Your task to perform on an android device: make emails show in primary in the gmail app Image 0: 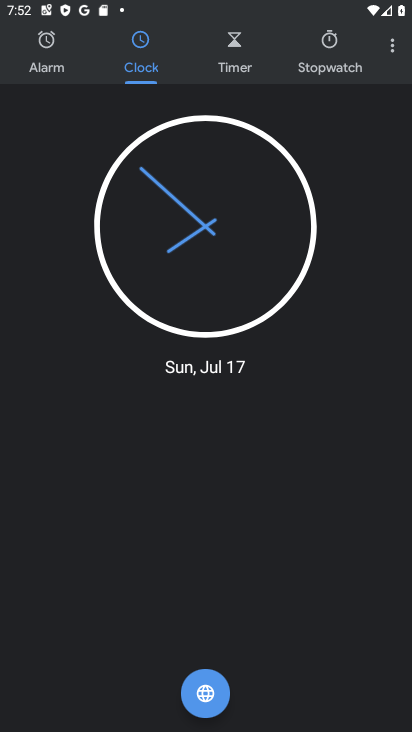
Step 0: press home button
Your task to perform on an android device: make emails show in primary in the gmail app Image 1: 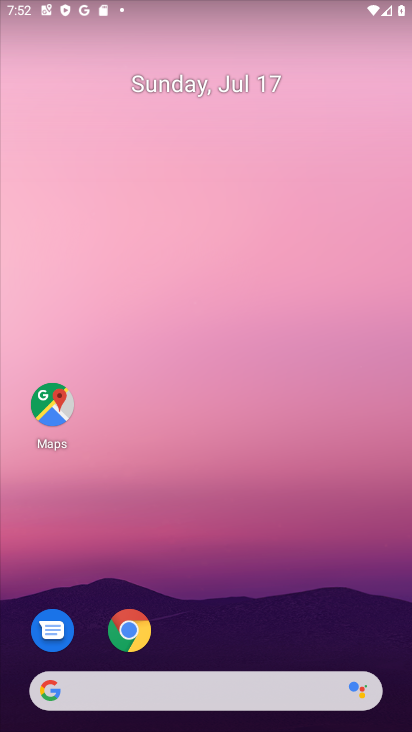
Step 1: drag from (204, 632) to (212, 11)
Your task to perform on an android device: make emails show in primary in the gmail app Image 2: 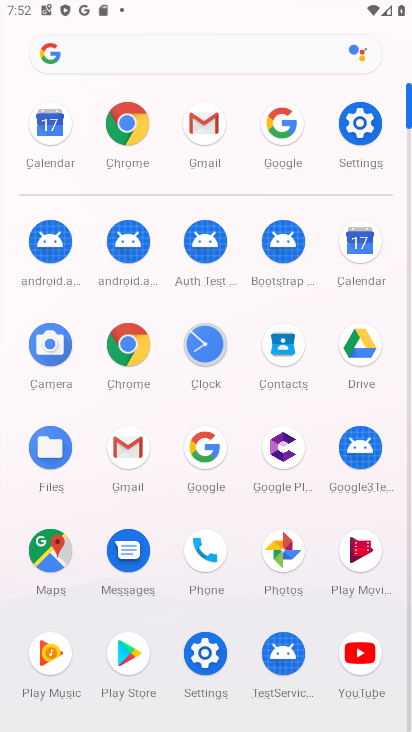
Step 2: click (200, 130)
Your task to perform on an android device: make emails show in primary in the gmail app Image 3: 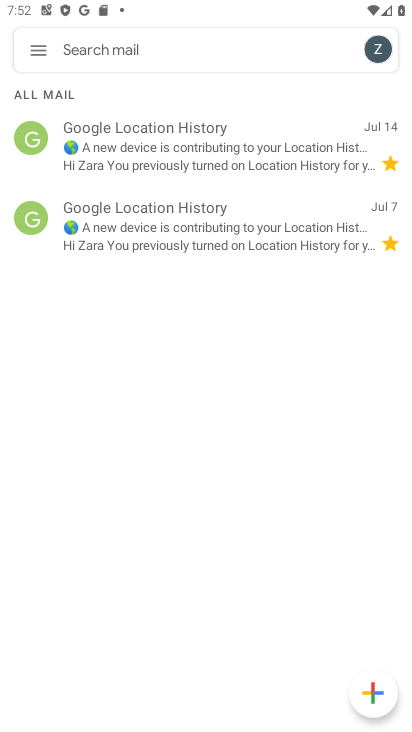
Step 3: click (33, 52)
Your task to perform on an android device: make emails show in primary in the gmail app Image 4: 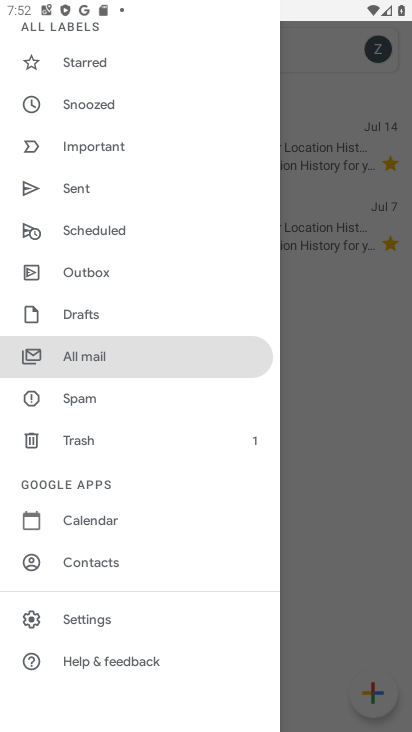
Step 4: click (94, 626)
Your task to perform on an android device: make emails show in primary in the gmail app Image 5: 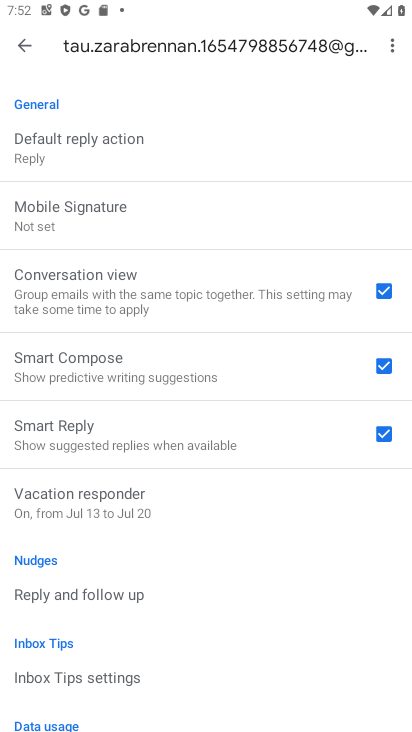
Step 5: drag from (283, 187) to (244, 523)
Your task to perform on an android device: make emails show in primary in the gmail app Image 6: 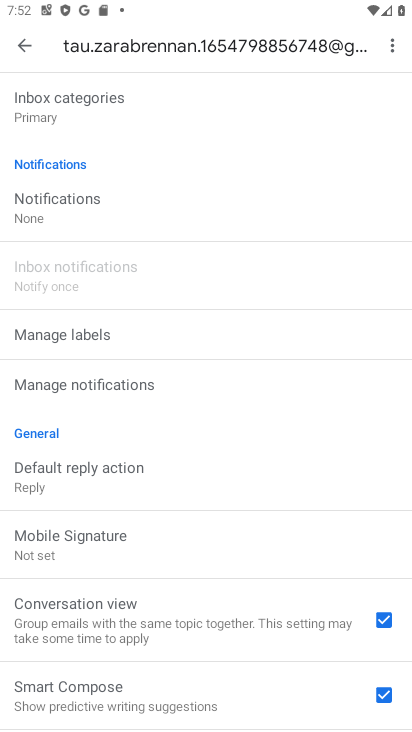
Step 6: drag from (293, 266) to (232, 568)
Your task to perform on an android device: make emails show in primary in the gmail app Image 7: 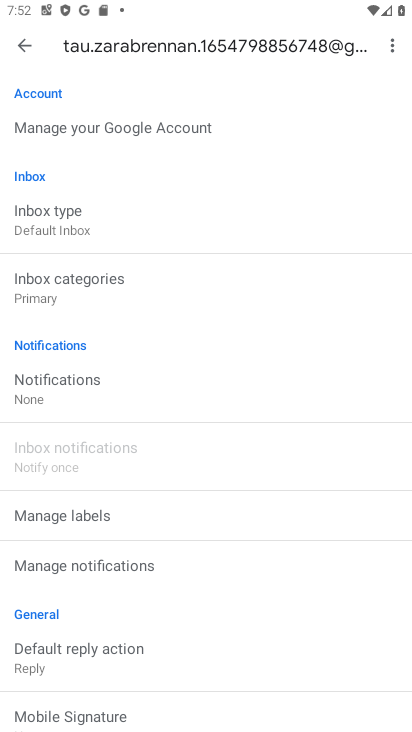
Step 7: click (79, 290)
Your task to perform on an android device: make emails show in primary in the gmail app Image 8: 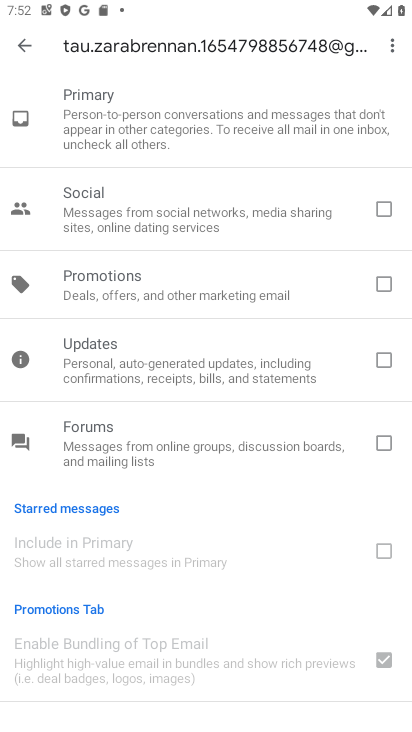
Step 8: task complete